Your task to perform on an android device: Check the weather Image 0: 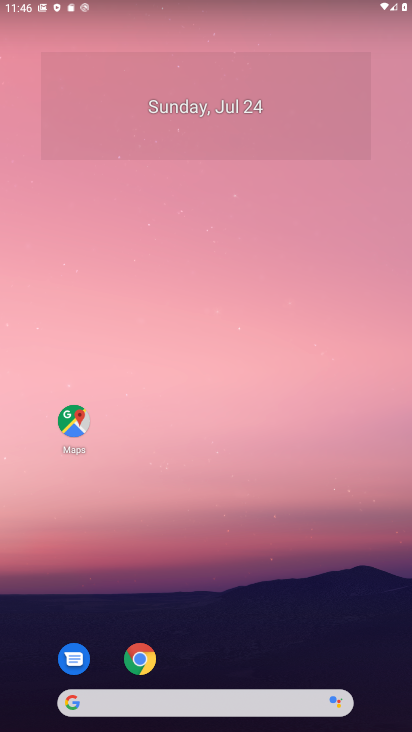
Step 0: click (235, 705)
Your task to perform on an android device: Check the weather Image 1: 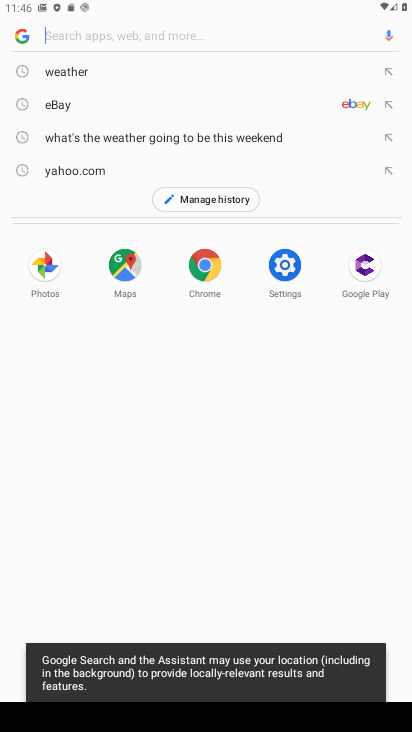
Step 1: type "Check the weather"
Your task to perform on an android device: Check the weather Image 2: 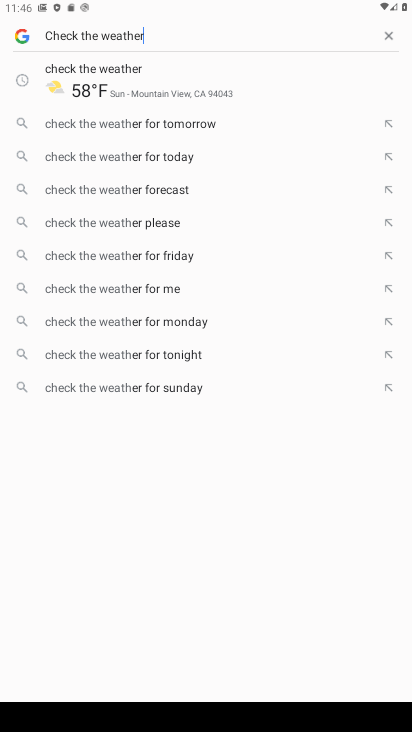
Step 2: press enter
Your task to perform on an android device: Check the weather Image 3: 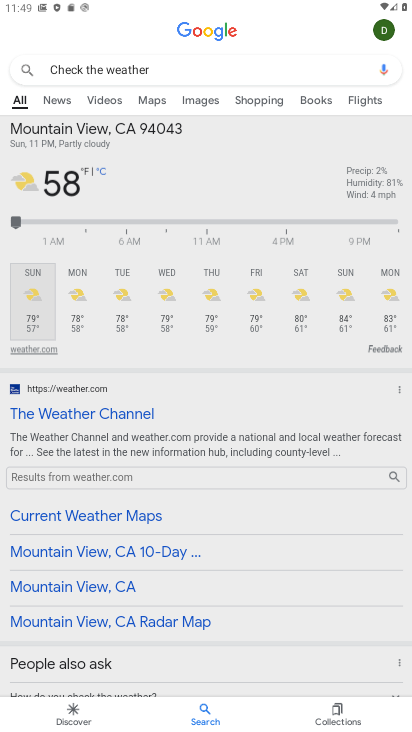
Step 3: task complete